Your task to perform on an android device: Show me the alarms in the clock app Image 0: 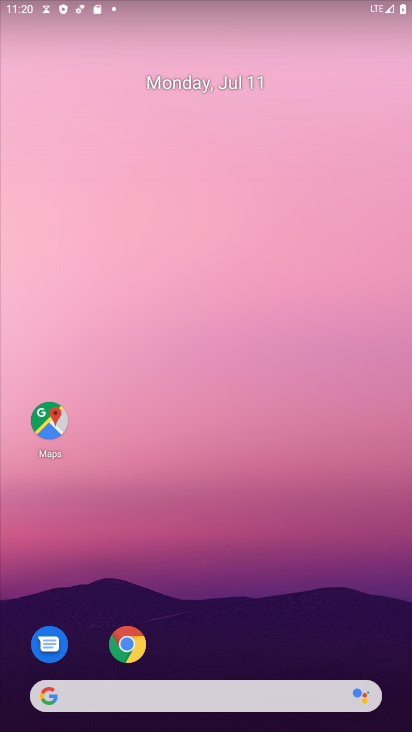
Step 0: click (354, 321)
Your task to perform on an android device: Show me the alarms in the clock app Image 1: 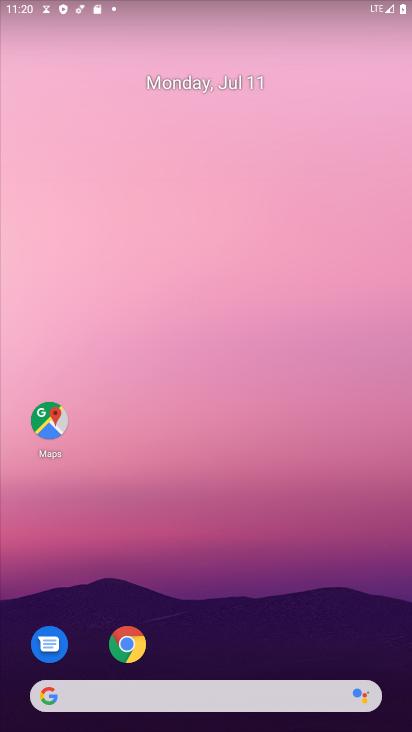
Step 1: drag from (398, 677) to (310, 34)
Your task to perform on an android device: Show me the alarms in the clock app Image 2: 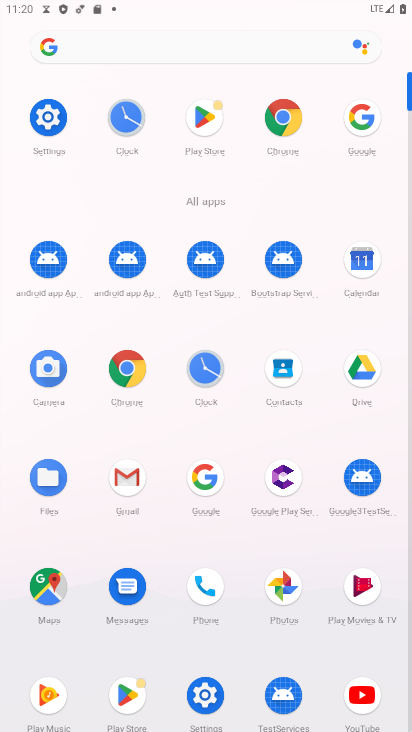
Step 2: click (223, 374)
Your task to perform on an android device: Show me the alarms in the clock app Image 3: 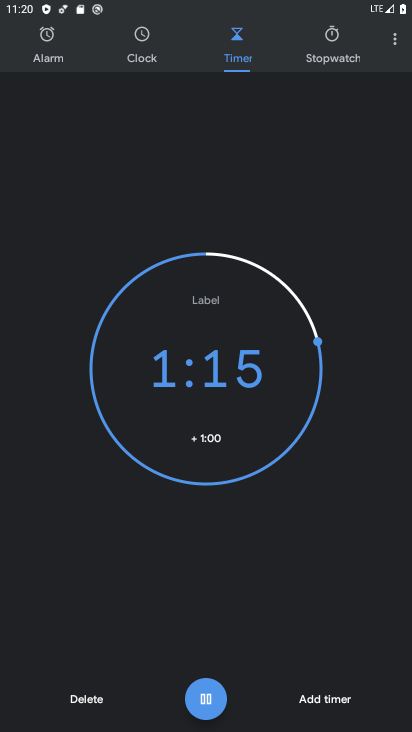
Step 3: click (50, 44)
Your task to perform on an android device: Show me the alarms in the clock app Image 4: 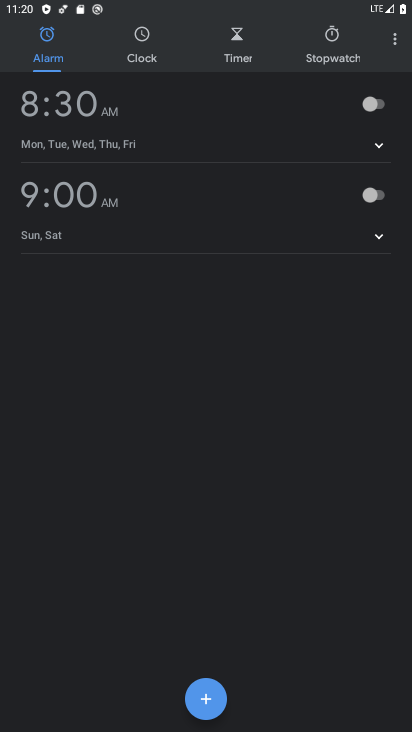
Step 4: task complete